Your task to perform on an android device: turn on notifications settings in the gmail app Image 0: 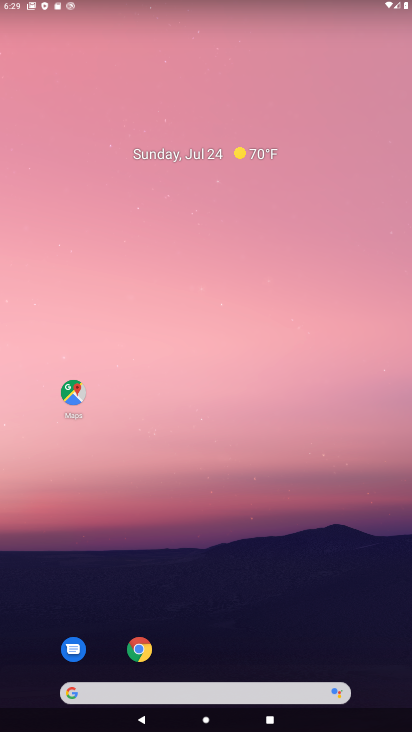
Step 0: drag from (249, 517) to (118, 0)
Your task to perform on an android device: turn on notifications settings in the gmail app Image 1: 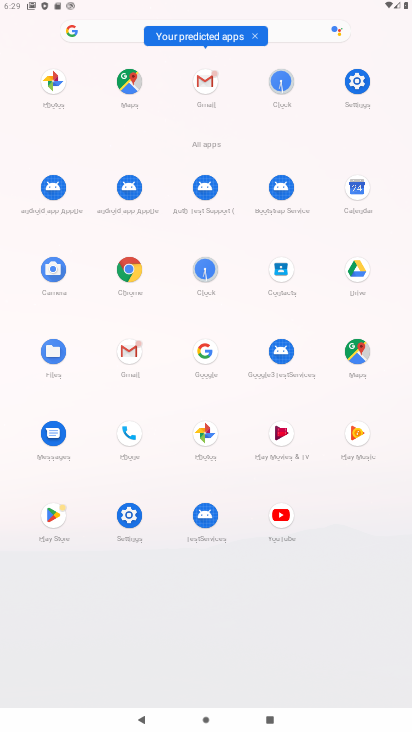
Step 1: click (204, 81)
Your task to perform on an android device: turn on notifications settings in the gmail app Image 2: 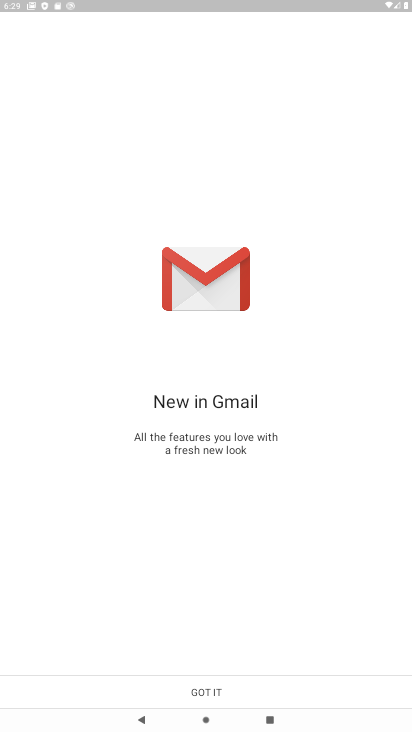
Step 2: click (202, 690)
Your task to perform on an android device: turn on notifications settings in the gmail app Image 3: 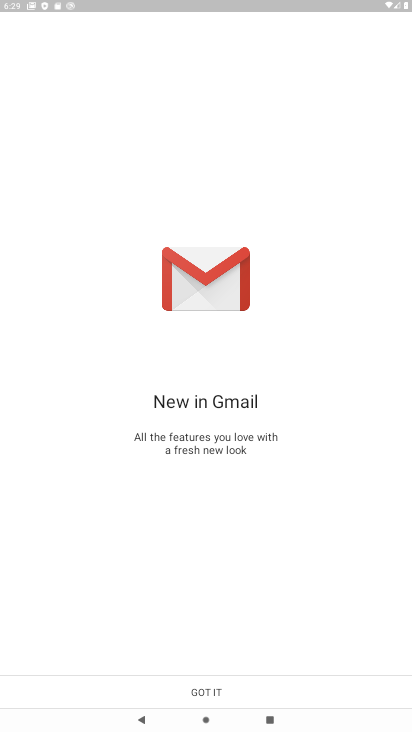
Step 3: click (202, 690)
Your task to perform on an android device: turn on notifications settings in the gmail app Image 4: 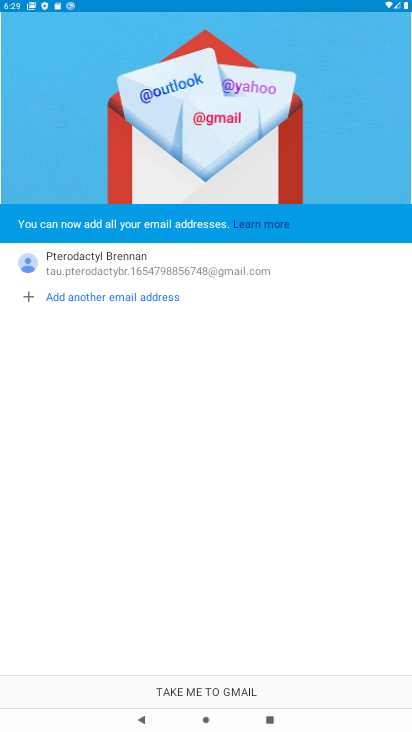
Step 4: click (205, 688)
Your task to perform on an android device: turn on notifications settings in the gmail app Image 5: 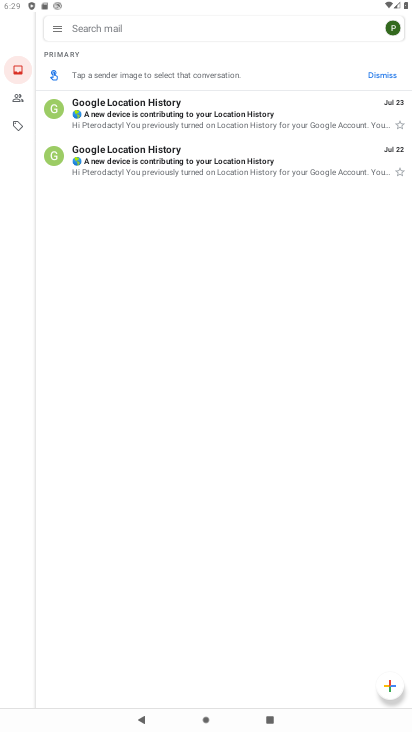
Step 5: click (58, 26)
Your task to perform on an android device: turn on notifications settings in the gmail app Image 6: 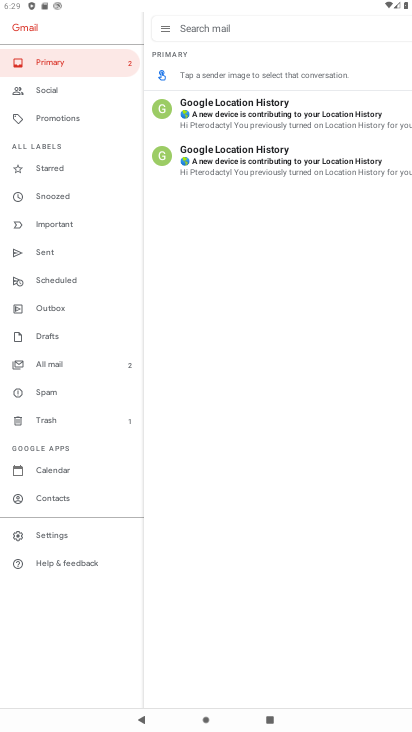
Step 6: click (49, 534)
Your task to perform on an android device: turn on notifications settings in the gmail app Image 7: 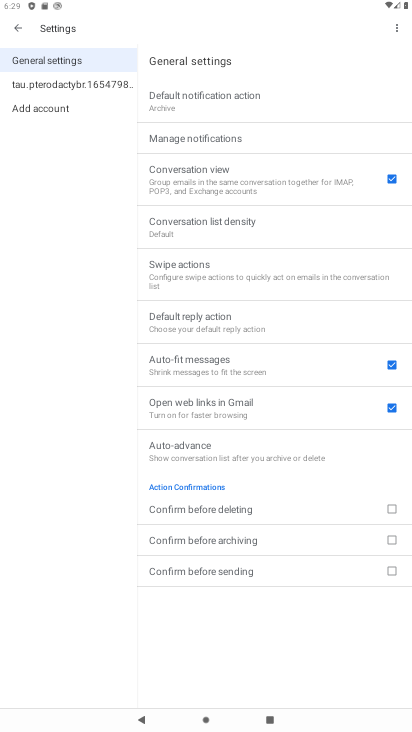
Step 7: click (187, 139)
Your task to perform on an android device: turn on notifications settings in the gmail app Image 8: 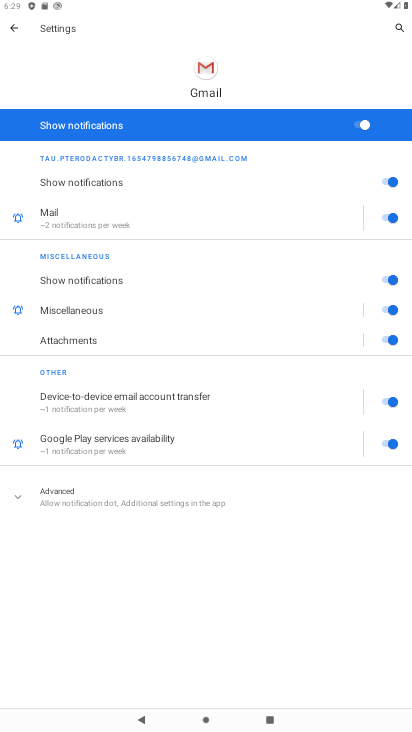
Step 8: task complete